Your task to perform on an android device: What's on my calendar today? Image 0: 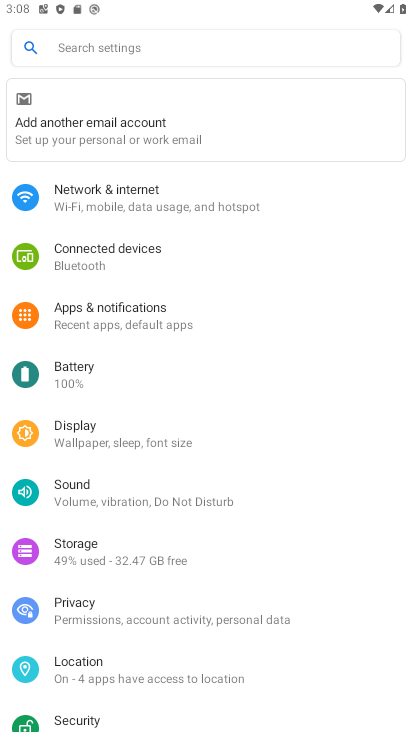
Step 0: press home button
Your task to perform on an android device: What's on my calendar today? Image 1: 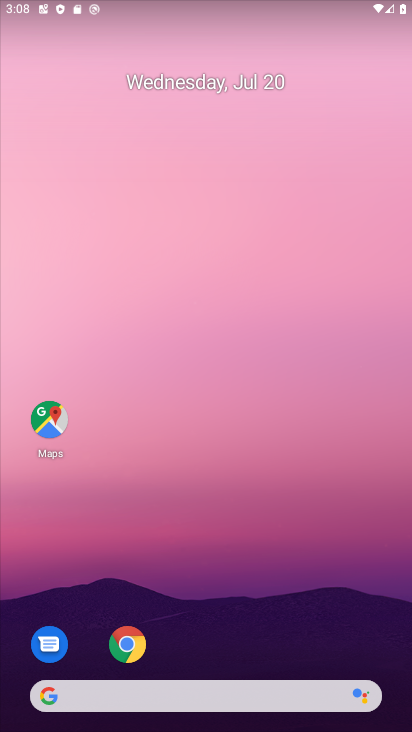
Step 1: drag from (263, 666) to (211, 185)
Your task to perform on an android device: What's on my calendar today? Image 2: 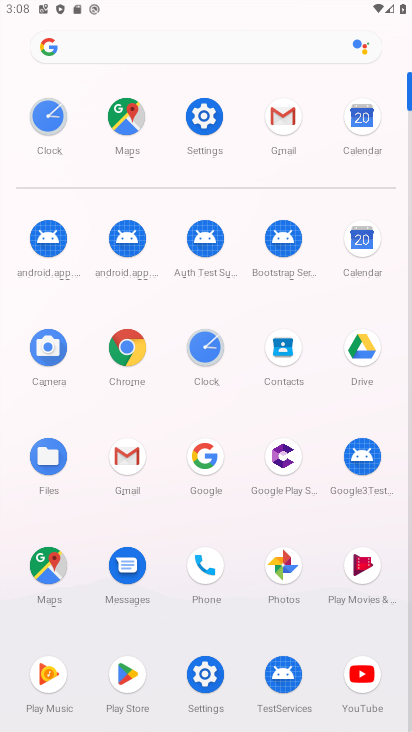
Step 2: click (348, 131)
Your task to perform on an android device: What's on my calendar today? Image 3: 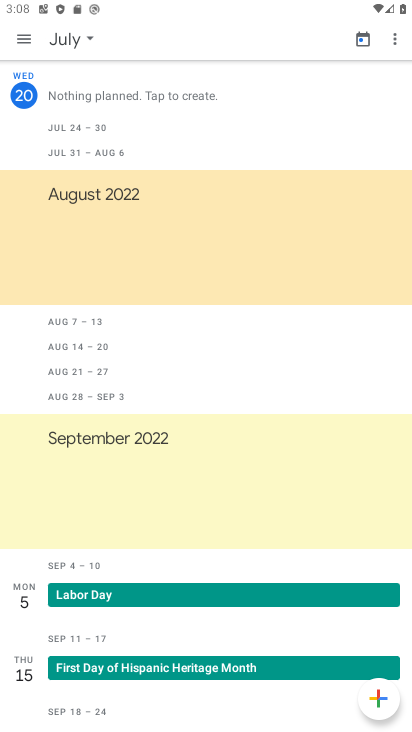
Step 3: task complete